Your task to perform on an android device: manage bookmarks in the chrome app Image 0: 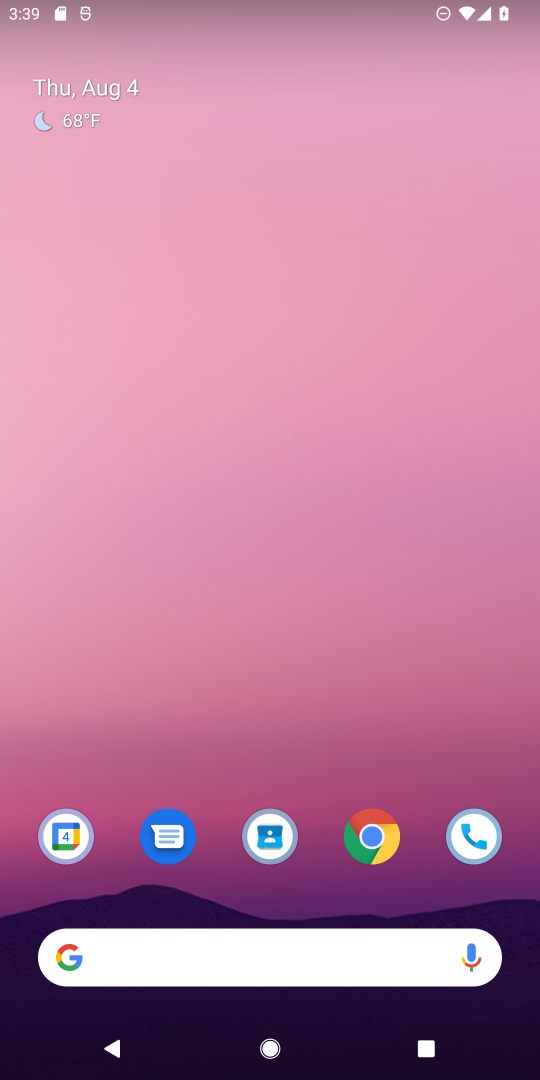
Step 0: click (379, 824)
Your task to perform on an android device: manage bookmarks in the chrome app Image 1: 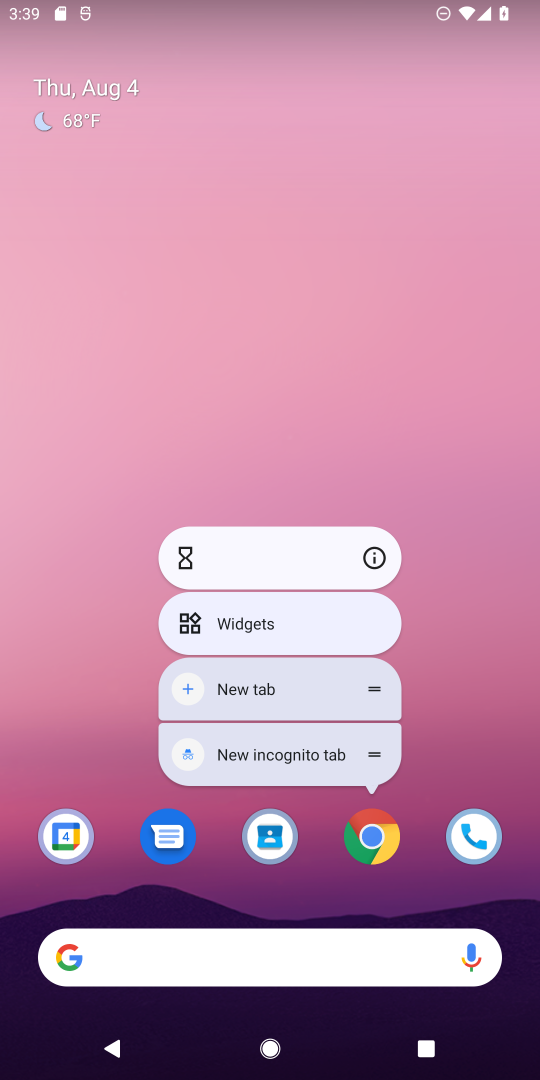
Step 1: click (379, 824)
Your task to perform on an android device: manage bookmarks in the chrome app Image 2: 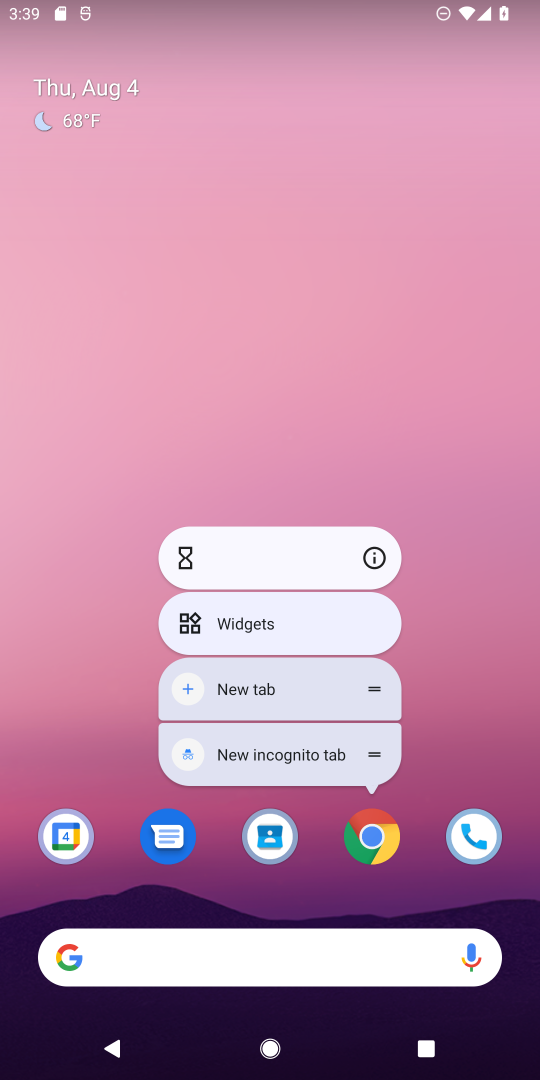
Step 2: click (379, 824)
Your task to perform on an android device: manage bookmarks in the chrome app Image 3: 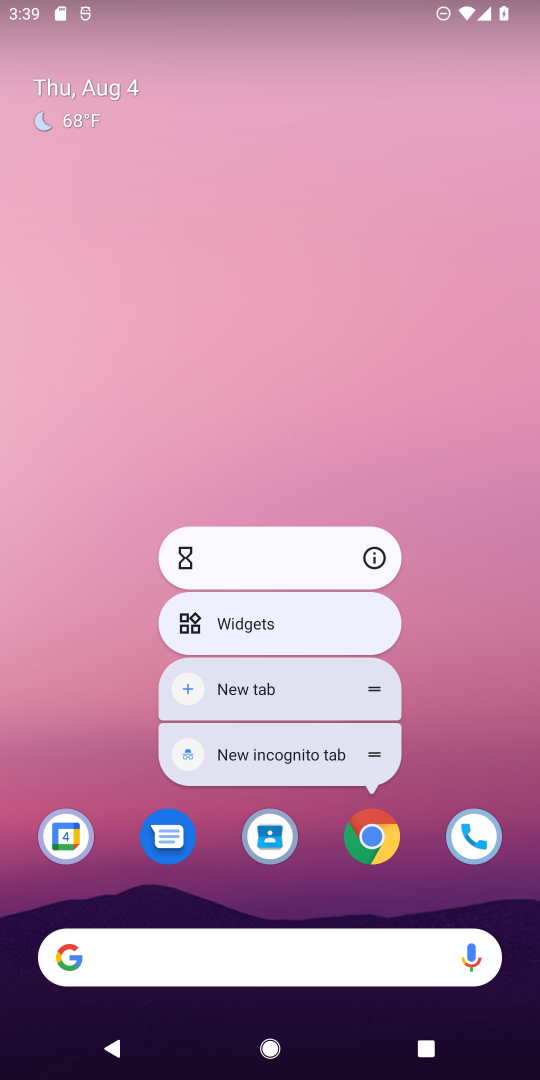
Step 3: click (379, 824)
Your task to perform on an android device: manage bookmarks in the chrome app Image 4: 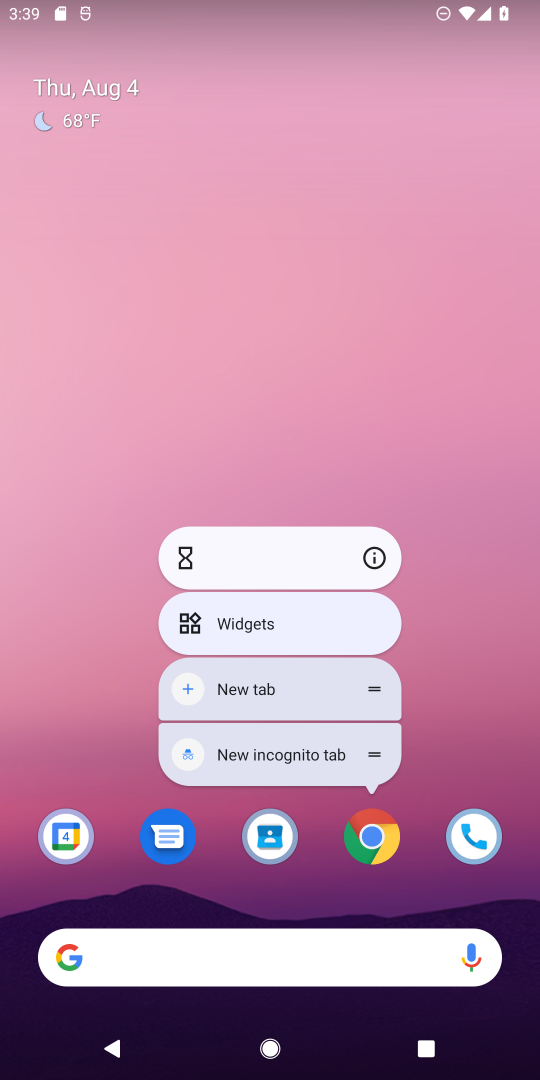
Step 4: click (379, 824)
Your task to perform on an android device: manage bookmarks in the chrome app Image 5: 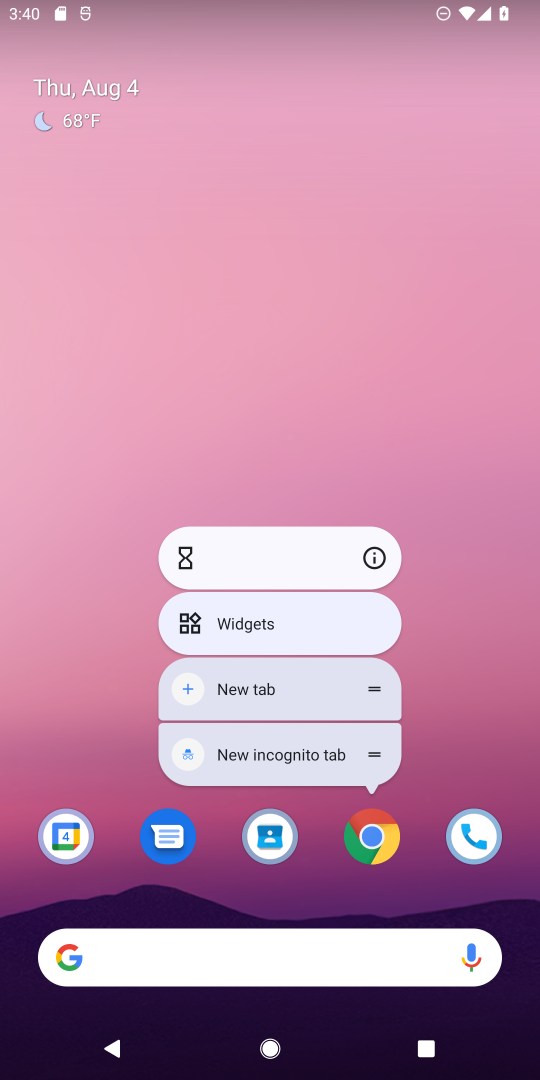
Step 5: click (388, 827)
Your task to perform on an android device: manage bookmarks in the chrome app Image 6: 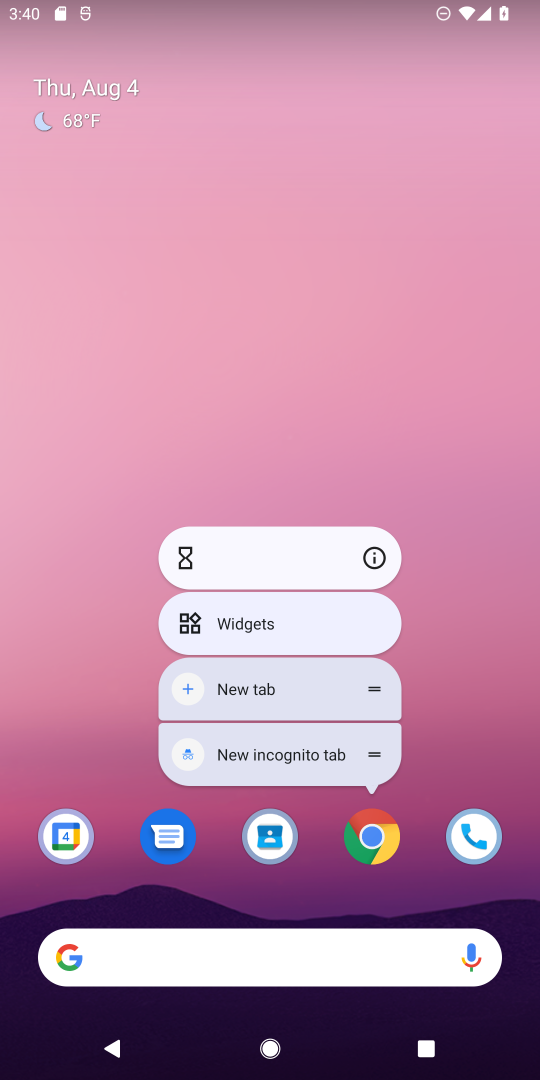
Step 6: click (388, 832)
Your task to perform on an android device: manage bookmarks in the chrome app Image 7: 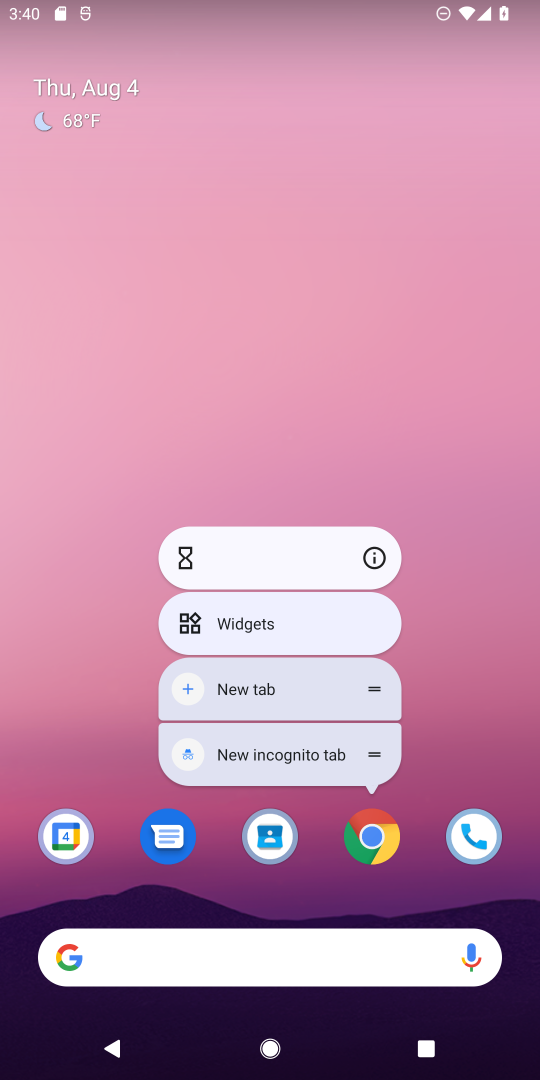
Step 7: click (388, 832)
Your task to perform on an android device: manage bookmarks in the chrome app Image 8: 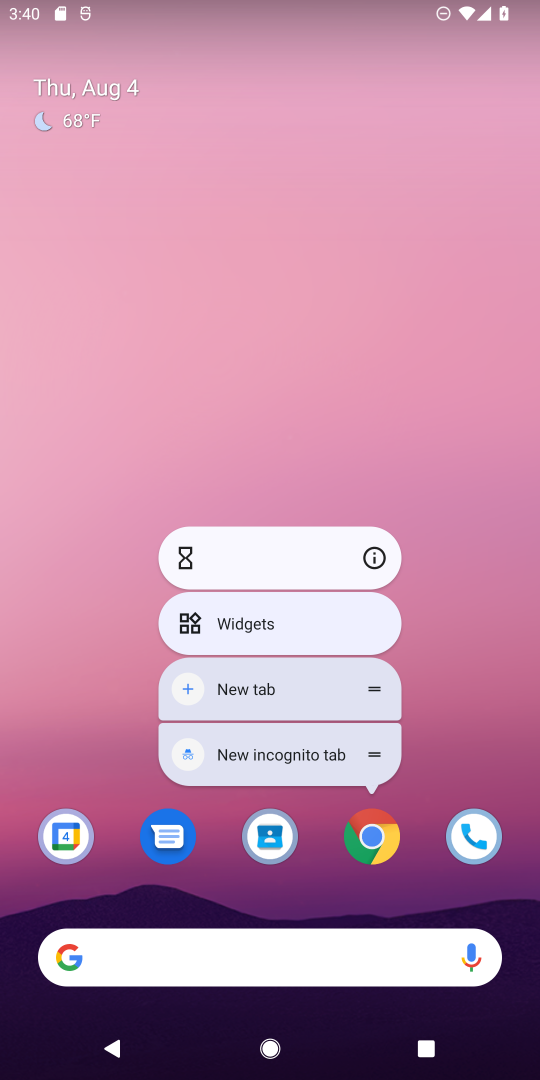
Step 8: click (365, 868)
Your task to perform on an android device: manage bookmarks in the chrome app Image 9: 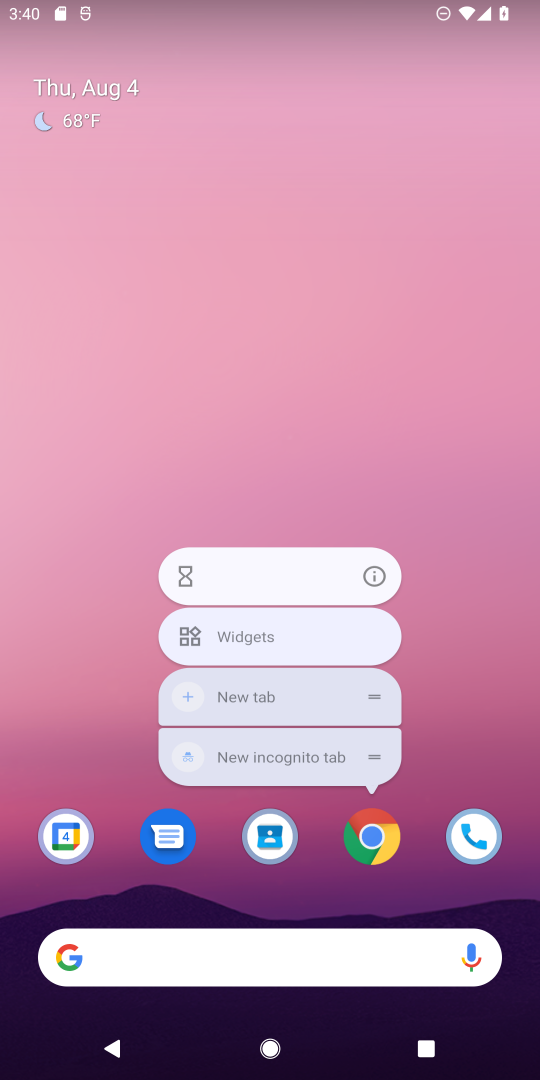
Step 9: click (365, 868)
Your task to perform on an android device: manage bookmarks in the chrome app Image 10: 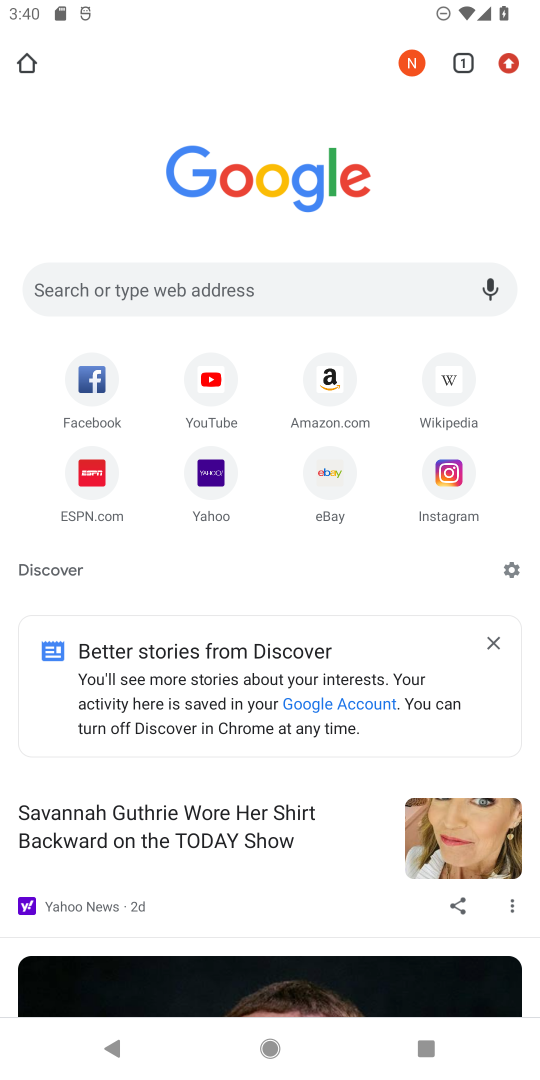
Step 10: click (514, 63)
Your task to perform on an android device: manage bookmarks in the chrome app Image 11: 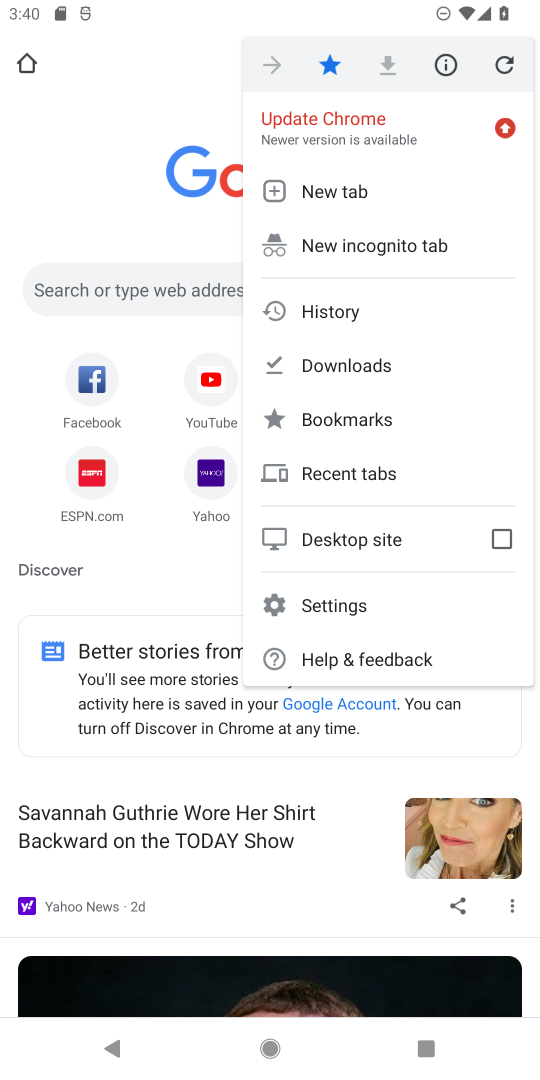
Step 11: click (345, 606)
Your task to perform on an android device: manage bookmarks in the chrome app Image 12: 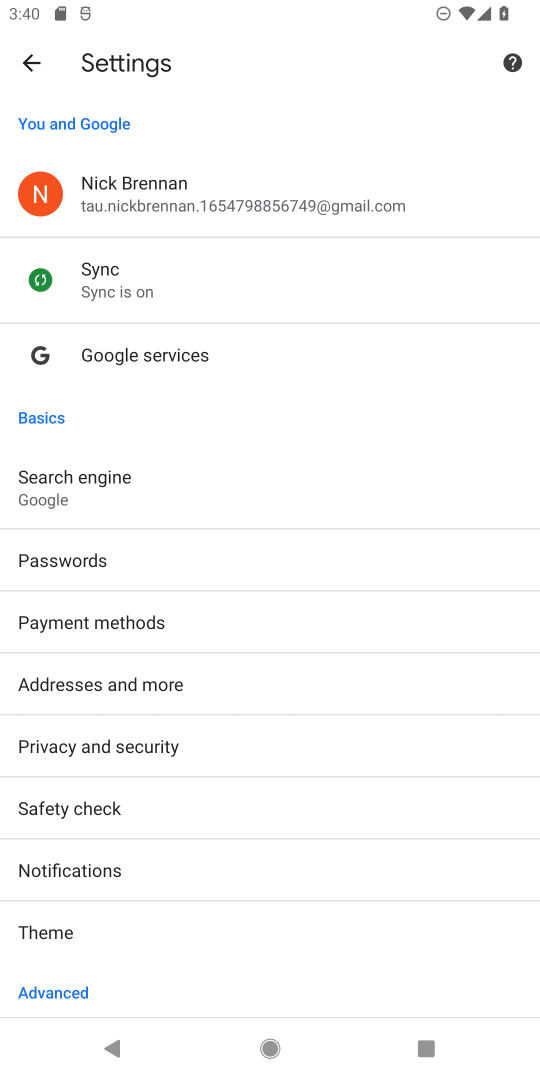
Step 12: click (28, 58)
Your task to perform on an android device: manage bookmarks in the chrome app Image 13: 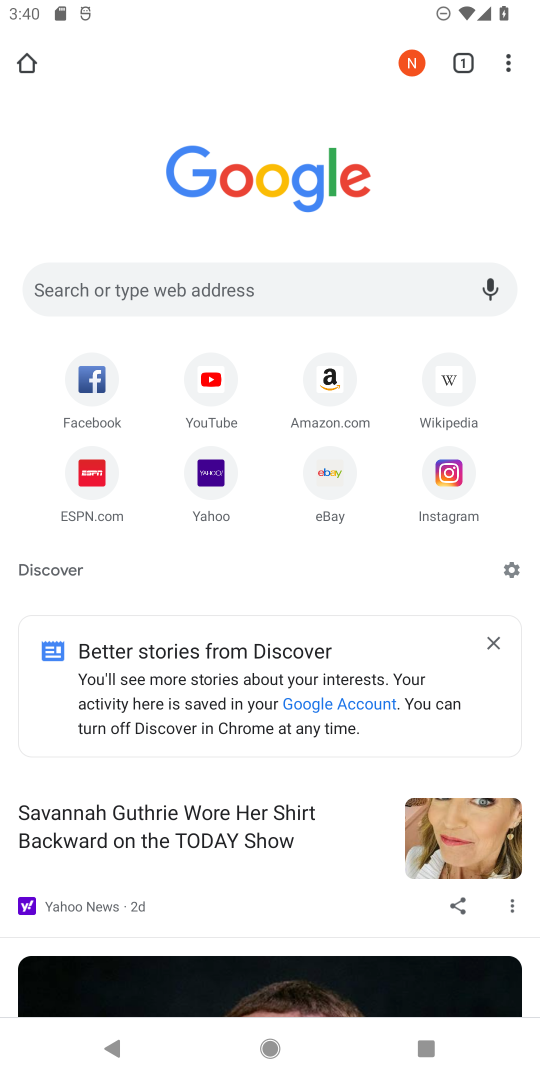
Step 13: click (507, 48)
Your task to perform on an android device: manage bookmarks in the chrome app Image 14: 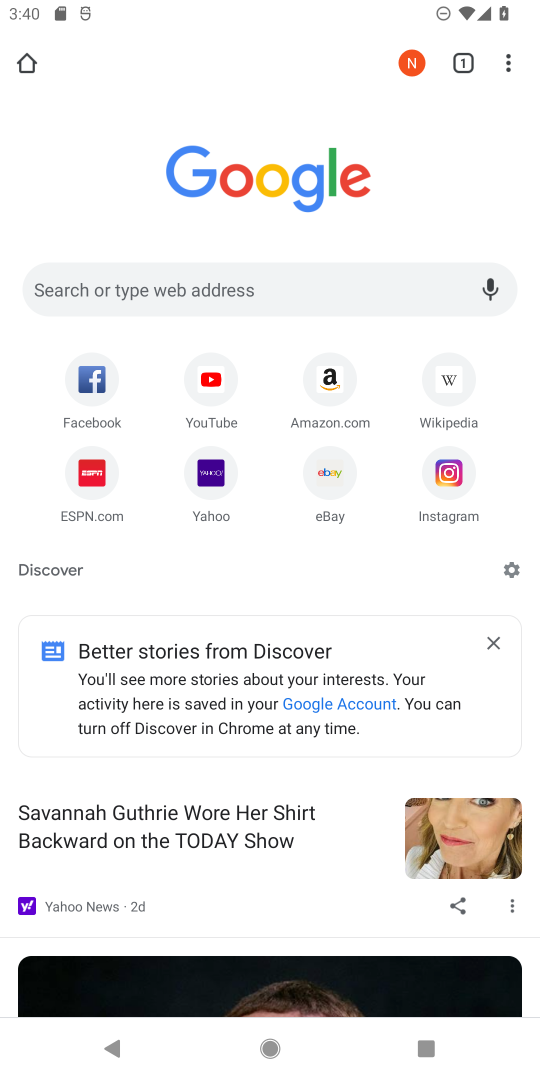
Step 14: click (510, 67)
Your task to perform on an android device: manage bookmarks in the chrome app Image 15: 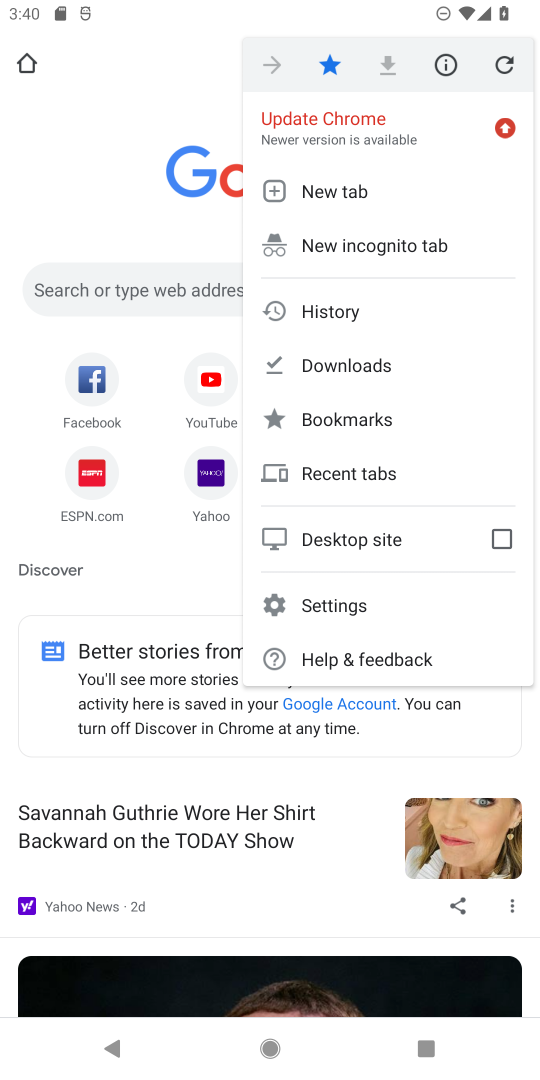
Step 15: click (358, 422)
Your task to perform on an android device: manage bookmarks in the chrome app Image 16: 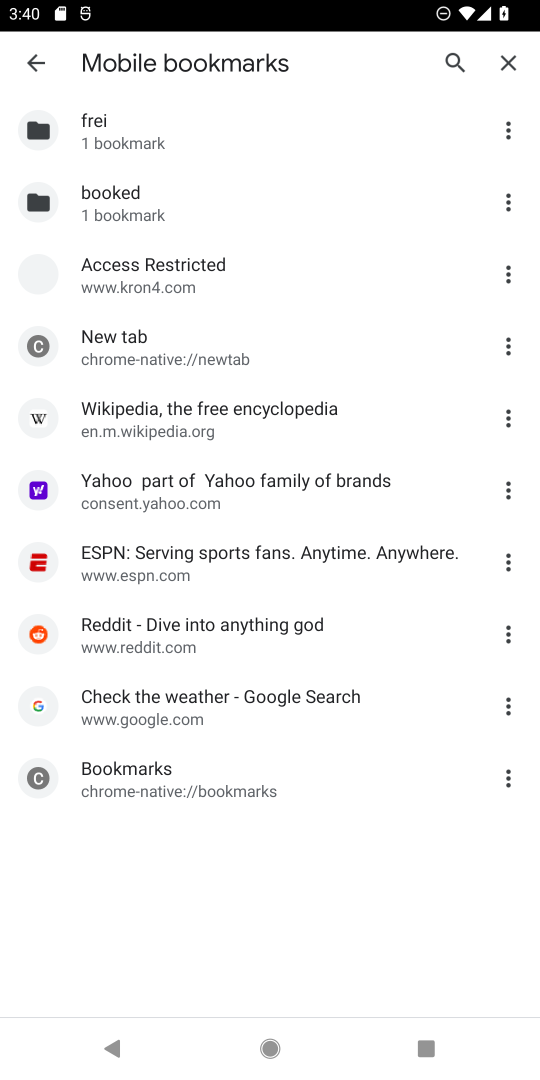
Step 16: click (501, 274)
Your task to perform on an android device: manage bookmarks in the chrome app Image 17: 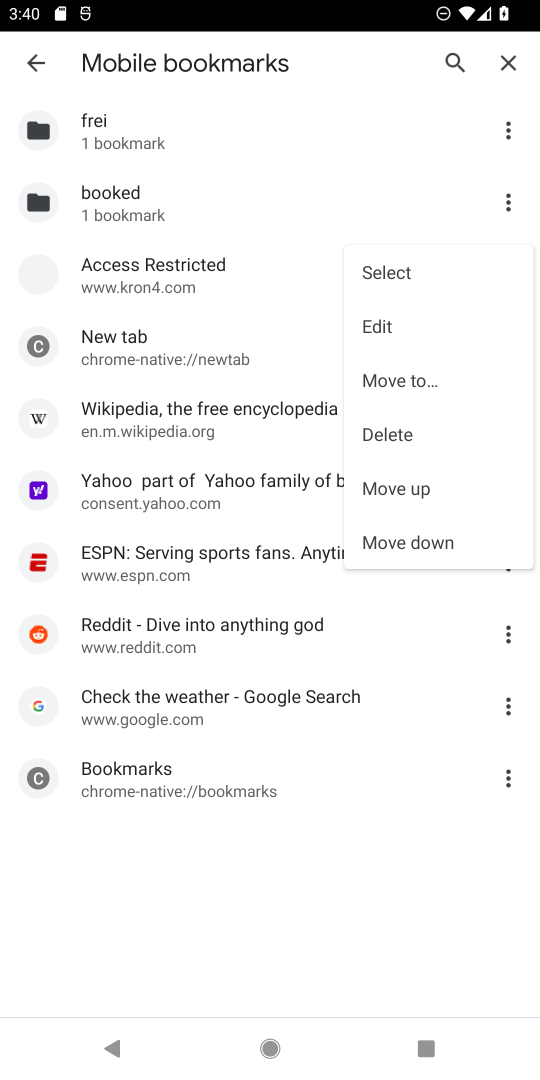
Step 17: click (419, 434)
Your task to perform on an android device: manage bookmarks in the chrome app Image 18: 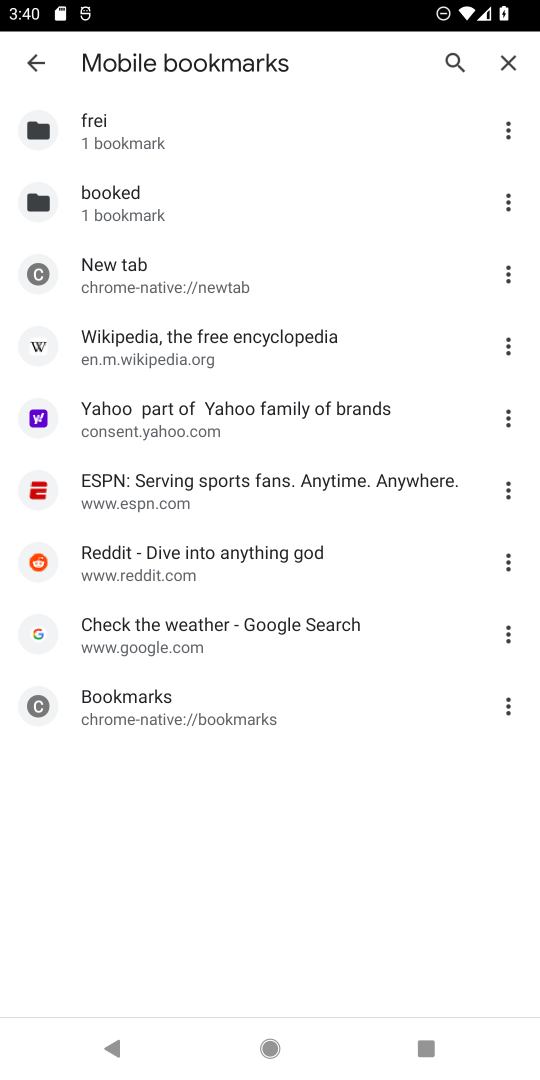
Step 18: task complete